Your task to perform on an android device: turn notification dots off Image 0: 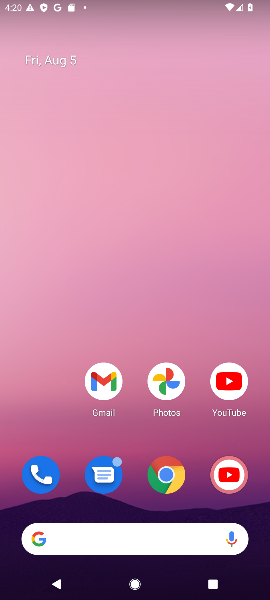
Step 0: drag from (118, 519) to (127, 23)
Your task to perform on an android device: turn notification dots off Image 1: 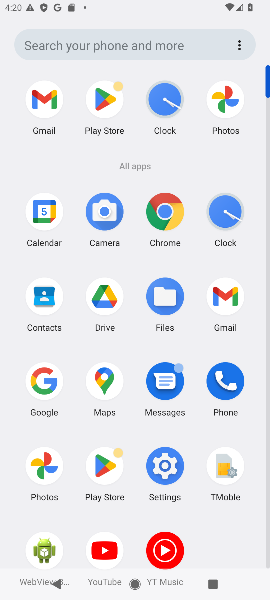
Step 1: click (161, 476)
Your task to perform on an android device: turn notification dots off Image 2: 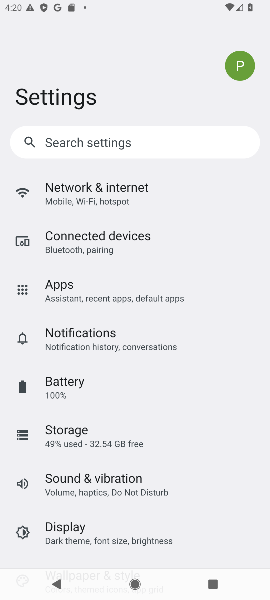
Step 2: click (103, 347)
Your task to perform on an android device: turn notification dots off Image 3: 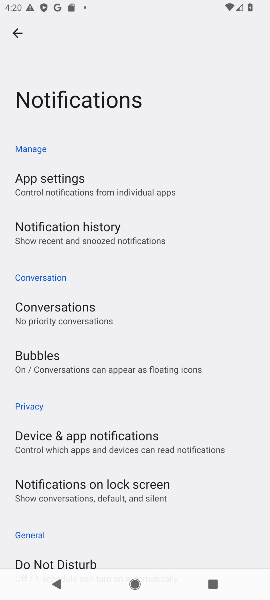
Step 3: drag from (121, 469) to (121, 169)
Your task to perform on an android device: turn notification dots off Image 4: 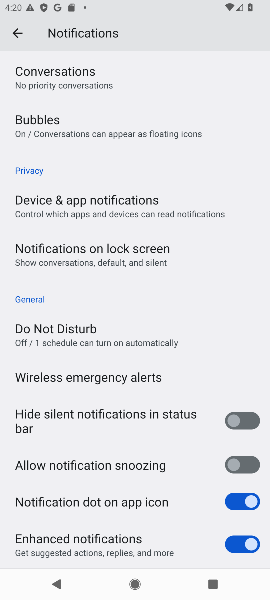
Step 4: click (226, 505)
Your task to perform on an android device: turn notification dots off Image 5: 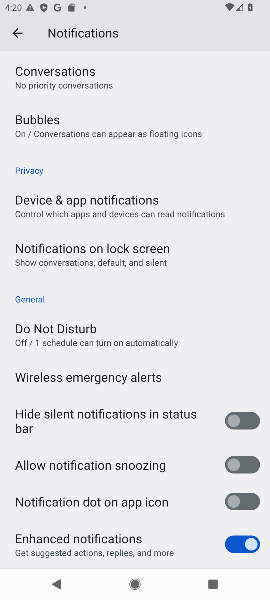
Step 5: task complete